Your task to perform on an android device: change notification settings in the gmail app Image 0: 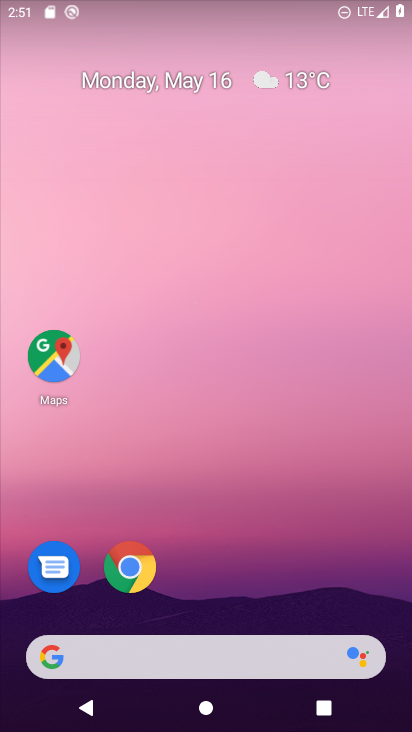
Step 0: drag from (307, 583) to (322, 0)
Your task to perform on an android device: change notification settings in the gmail app Image 1: 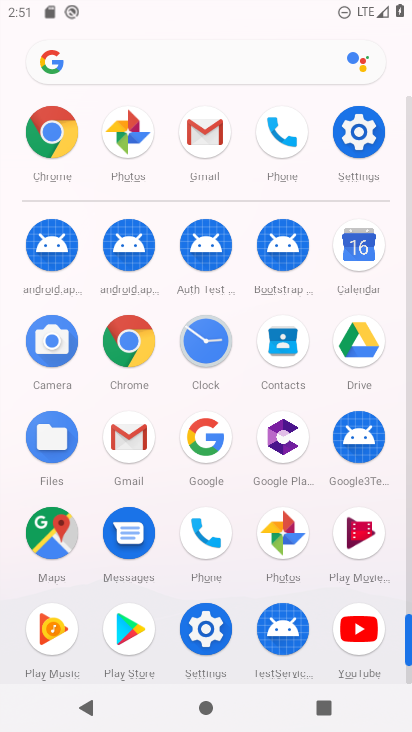
Step 1: click (136, 435)
Your task to perform on an android device: change notification settings in the gmail app Image 2: 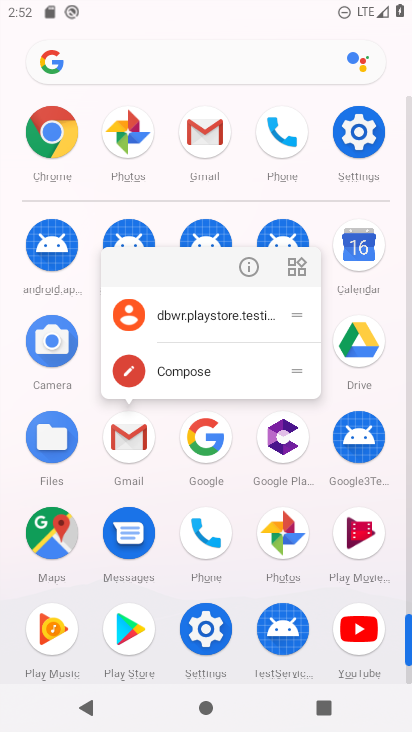
Step 2: click (245, 265)
Your task to perform on an android device: change notification settings in the gmail app Image 3: 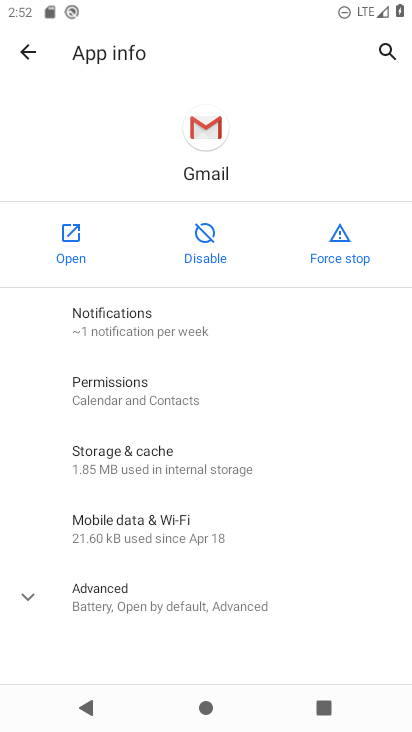
Step 3: click (191, 318)
Your task to perform on an android device: change notification settings in the gmail app Image 4: 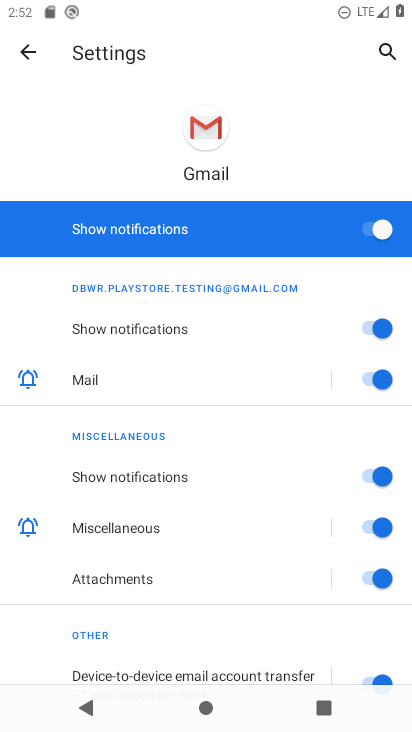
Step 4: click (383, 242)
Your task to perform on an android device: change notification settings in the gmail app Image 5: 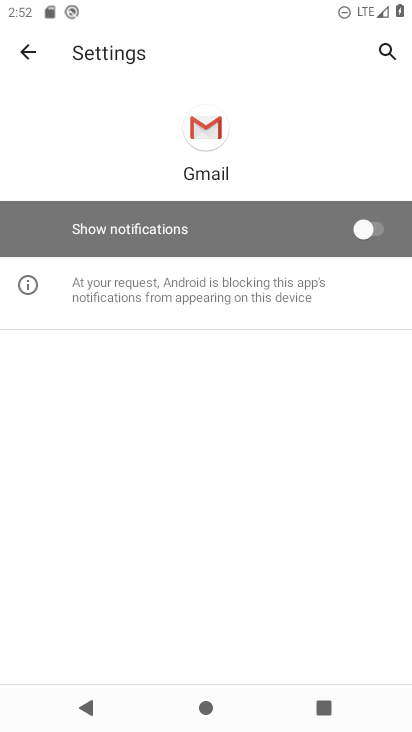
Step 5: task complete